Your task to perform on an android device: Open battery settings Image 0: 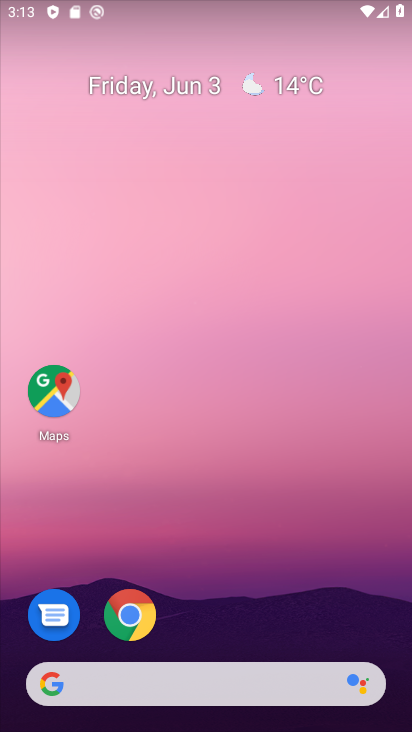
Step 0: drag from (160, 655) to (67, 157)
Your task to perform on an android device: Open battery settings Image 1: 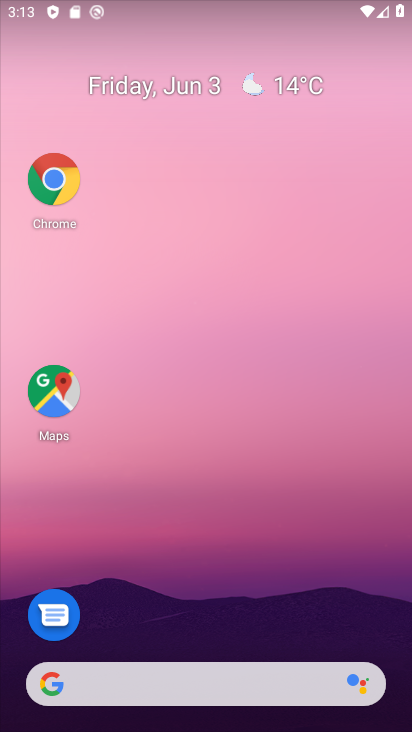
Step 1: drag from (172, 729) to (109, 49)
Your task to perform on an android device: Open battery settings Image 2: 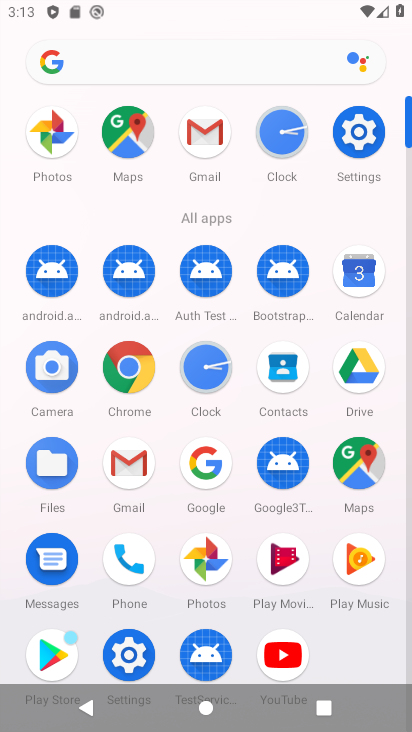
Step 2: click (126, 660)
Your task to perform on an android device: Open battery settings Image 3: 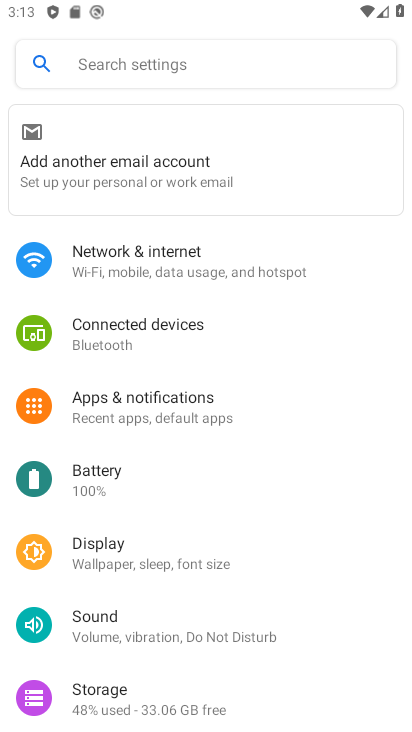
Step 3: click (97, 484)
Your task to perform on an android device: Open battery settings Image 4: 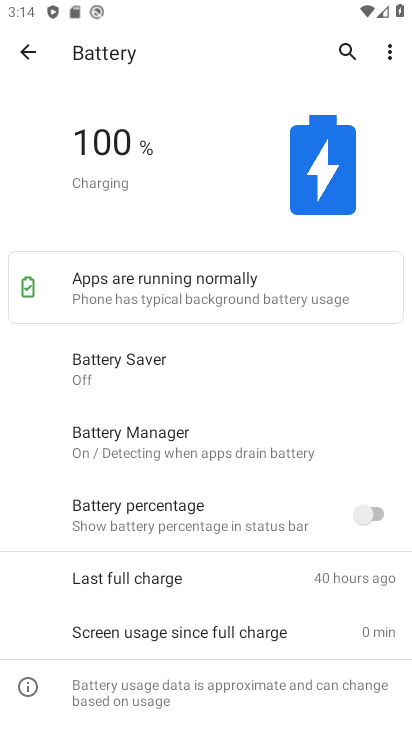
Step 4: task complete